Your task to perform on an android device: Do I have any events tomorrow? Image 0: 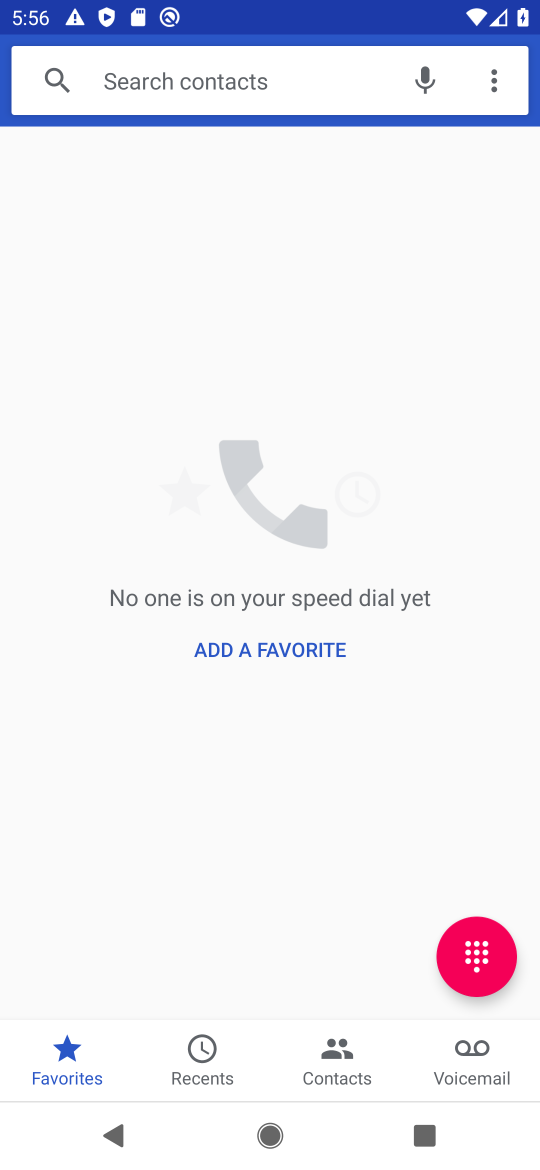
Step 0: press home button
Your task to perform on an android device: Do I have any events tomorrow? Image 1: 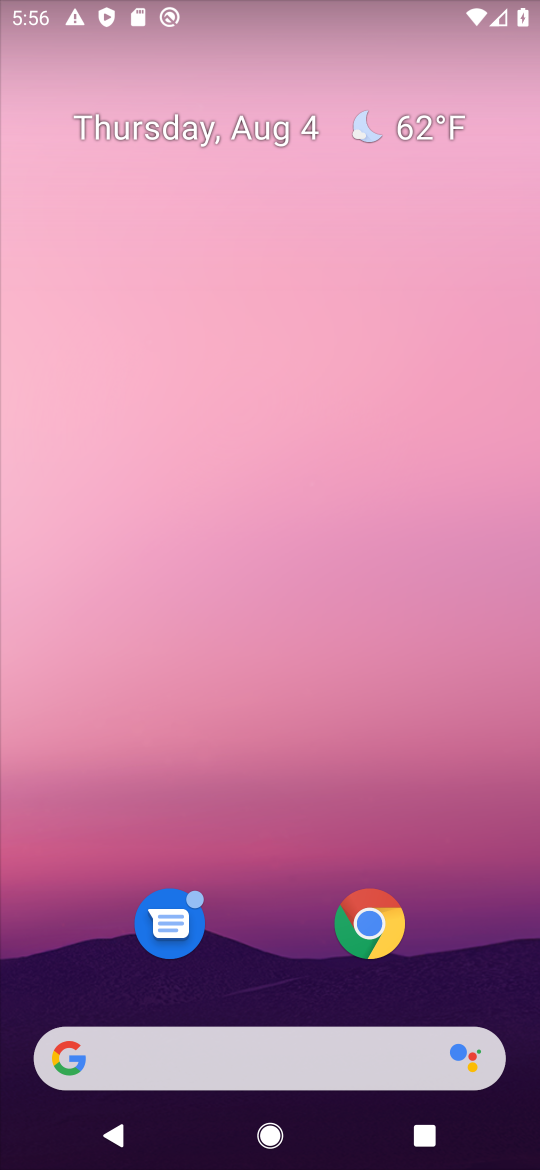
Step 1: drag from (288, 1001) to (177, 419)
Your task to perform on an android device: Do I have any events tomorrow? Image 2: 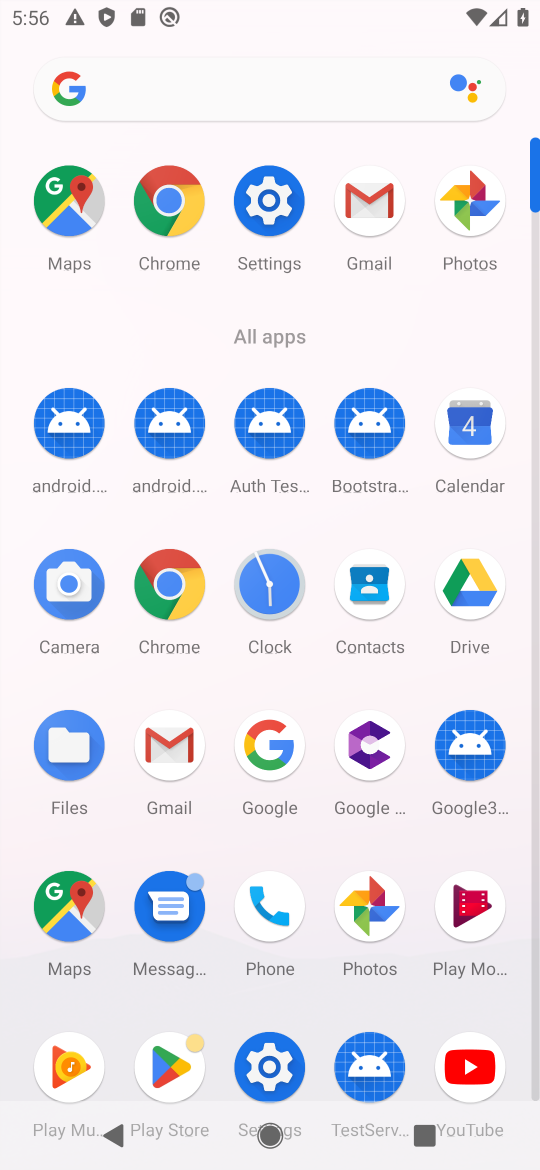
Step 2: click (458, 449)
Your task to perform on an android device: Do I have any events tomorrow? Image 3: 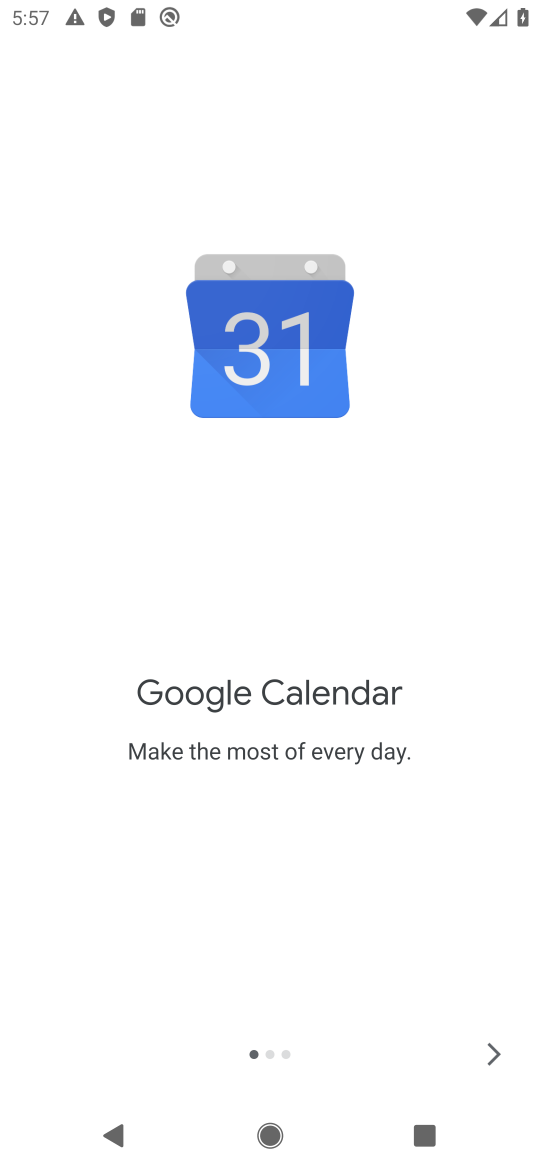
Step 3: click (486, 1047)
Your task to perform on an android device: Do I have any events tomorrow? Image 4: 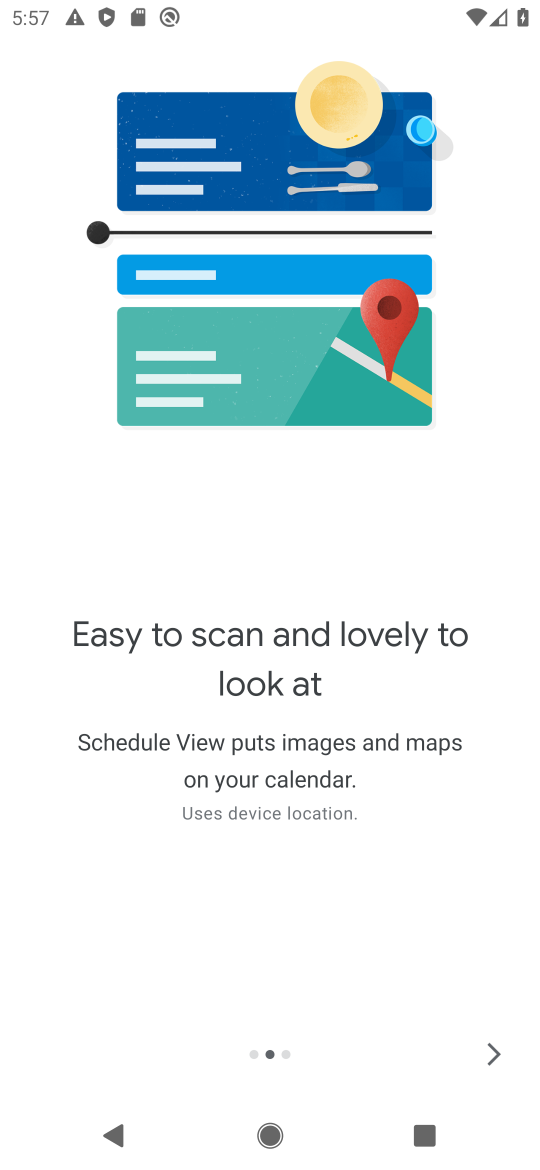
Step 4: click (486, 1047)
Your task to perform on an android device: Do I have any events tomorrow? Image 5: 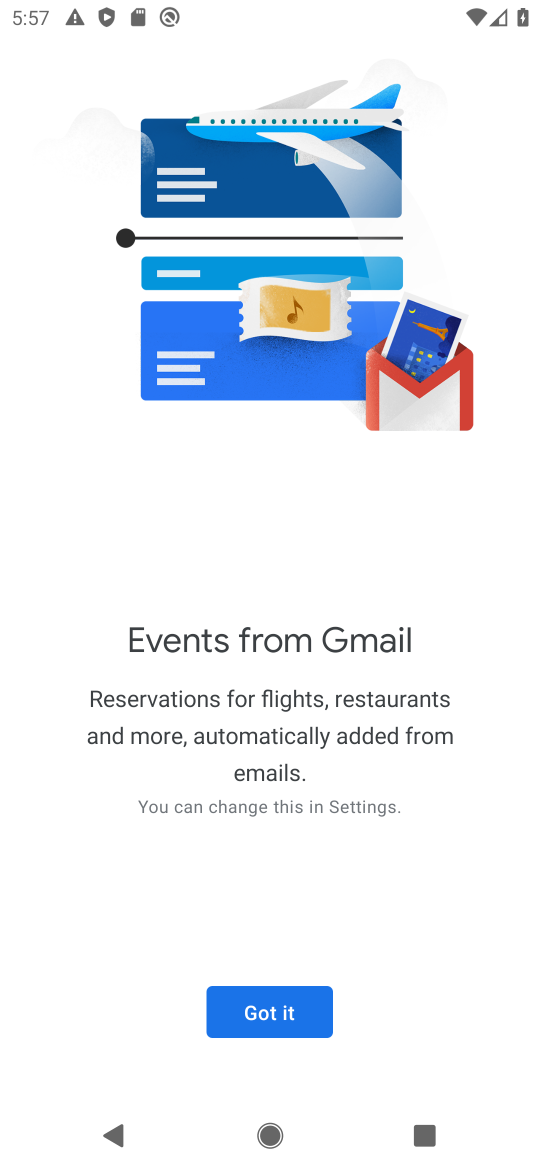
Step 5: click (305, 1023)
Your task to perform on an android device: Do I have any events tomorrow? Image 6: 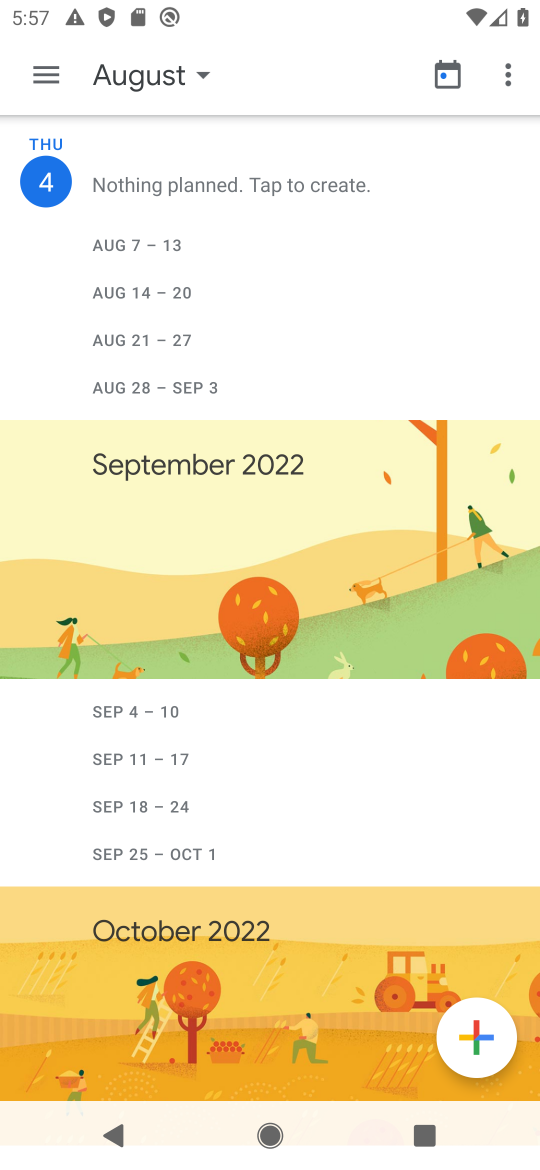
Step 6: click (37, 88)
Your task to perform on an android device: Do I have any events tomorrow? Image 7: 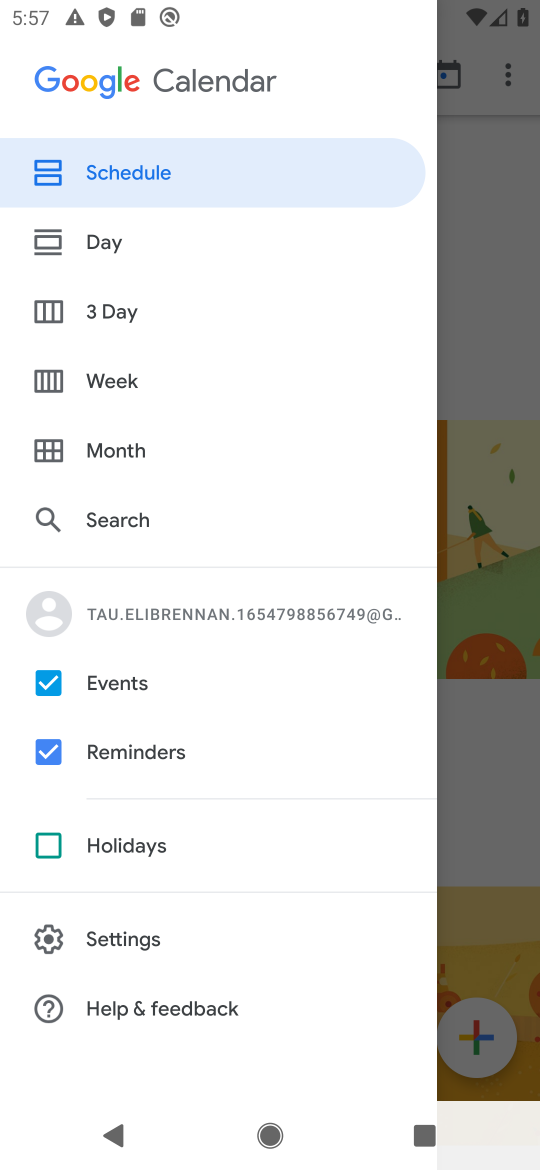
Step 7: click (136, 250)
Your task to perform on an android device: Do I have any events tomorrow? Image 8: 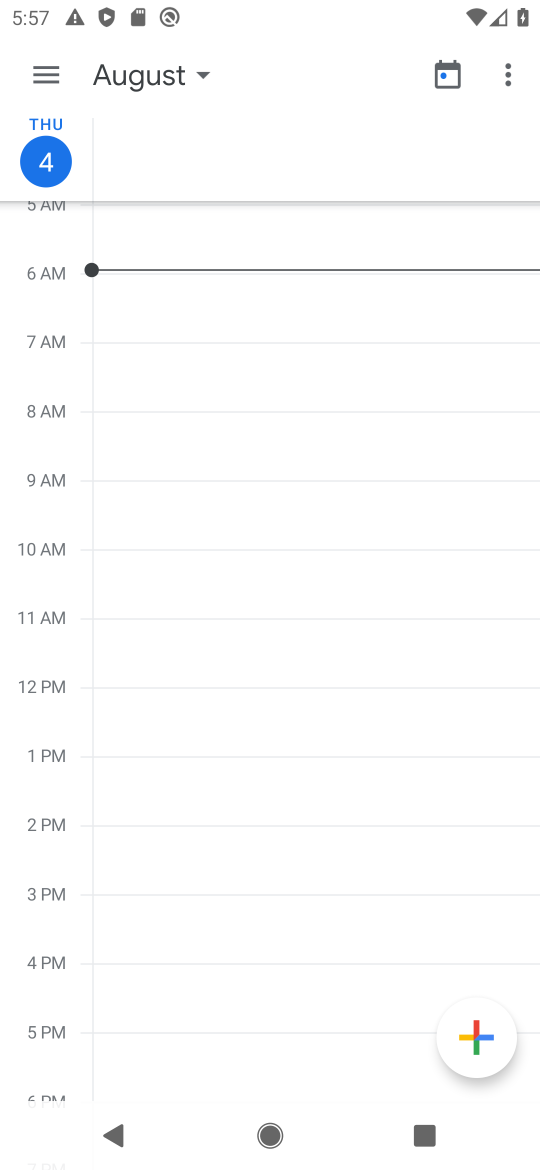
Step 8: click (185, 60)
Your task to perform on an android device: Do I have any events tomorrow? Image 9: 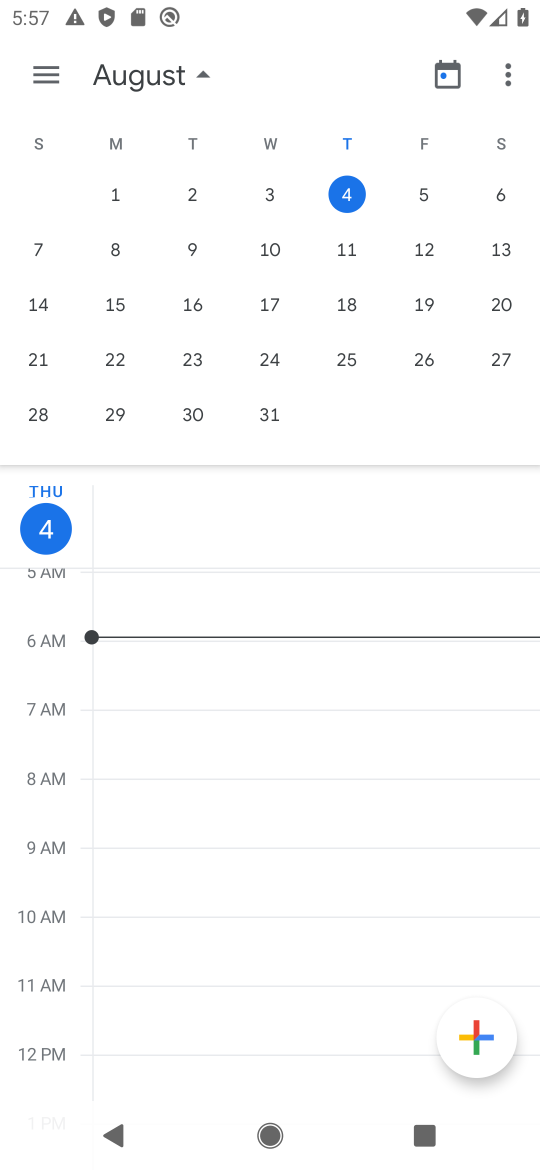
Step 9: click (411, 202)
Your task to perform on an android device: Do I have any events tomorrow? Image 10: 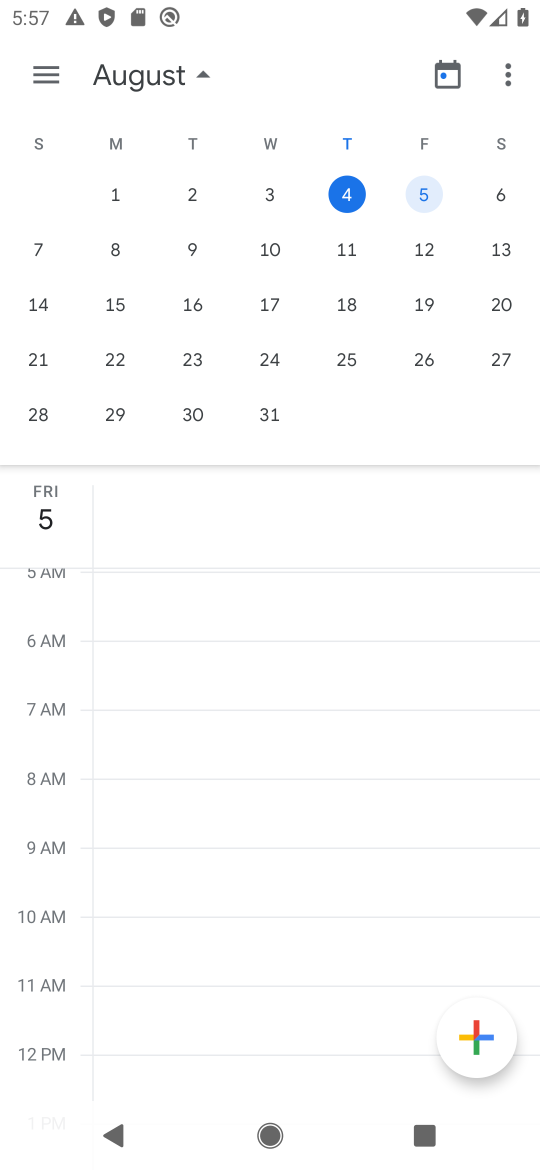
Step 10: task complete